Your task to perform on an android device: turn pop-ups on in chrome Image 0: 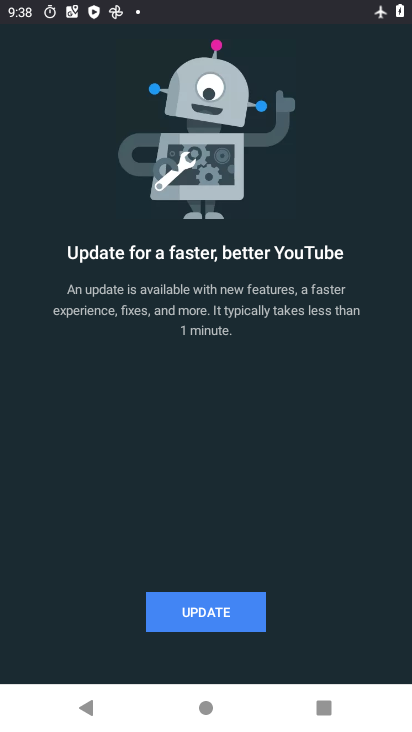
Step 0: press home button
Your task to perform on an android device: turn pop-ups on in chrome Image 1: 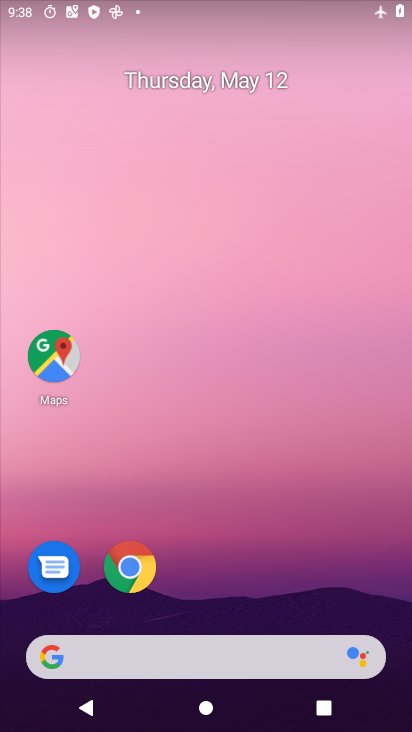
Step 1: click (135, 572)
Your task to perform on an android device: turn pop-ups on in chrome Image 2: 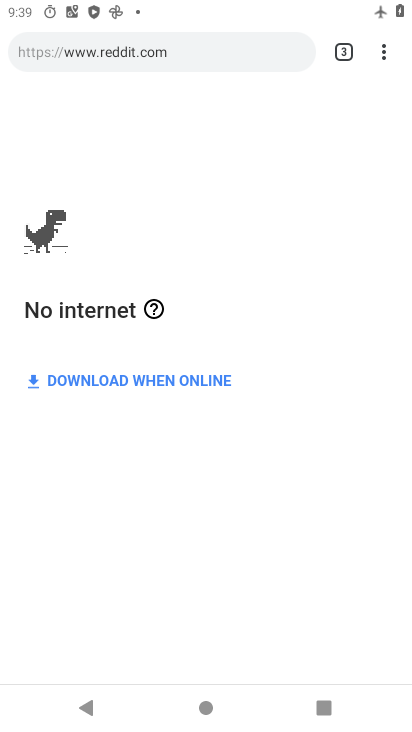
Step 2: click (388, 56)
Your task to perform on an android device: turn pop-ups on in chrome Image 3: 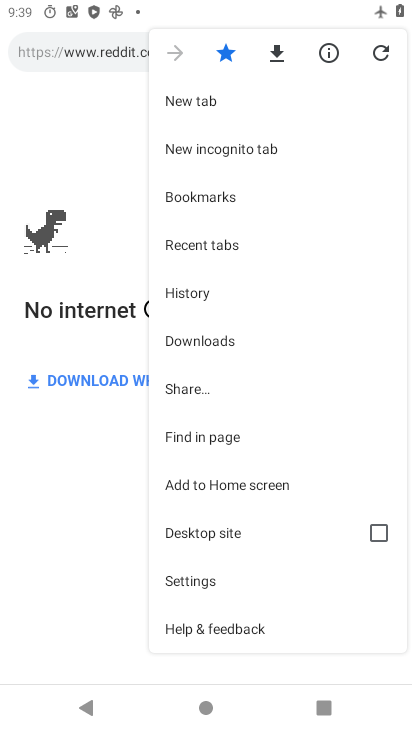
Step 3: click (248, 581)
Your task to perform on an android device: turn pop-ups on in chrome Image 4: 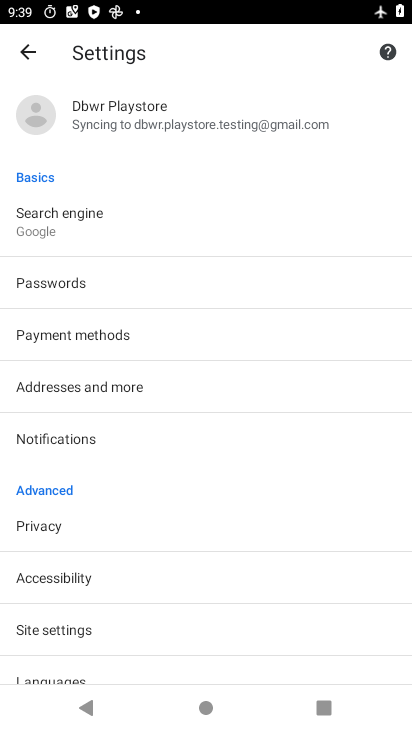
Step 4: drag from (114, 566) to (134, 370)
Your task to perform on an android device: turn pop-ups on in chrome Image 5: 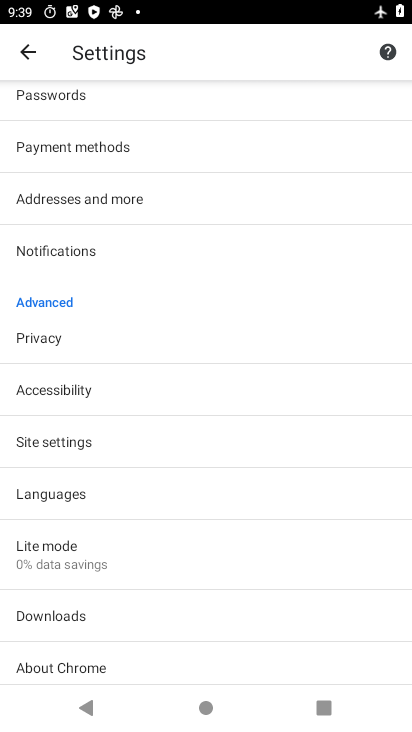
Step 5: click (80, 446)
Your task to perform on an android device: turn pop-ups on in chrome Image 6: 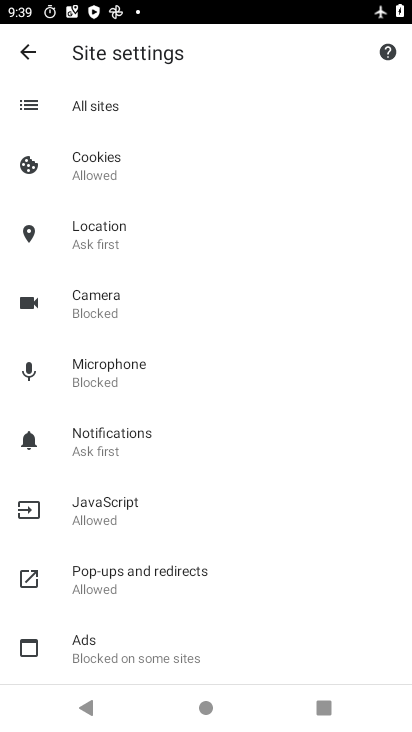
Step 6: click (135, 594)
Your task to perform on an android device: turn pop-ups on in chrome Image 7: 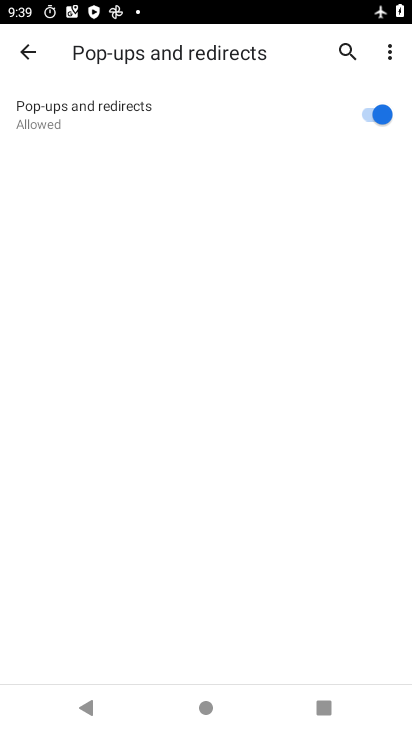
Step 7: task complete